Your task to perform on an android device: What's on my calendar today? Image 0: 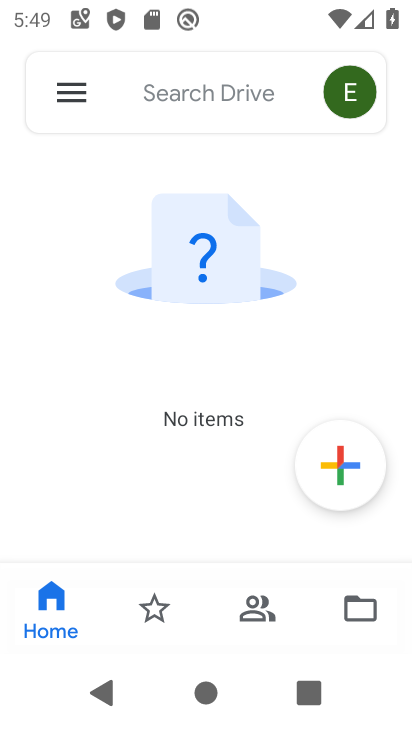
Step 0: drag from (183, 499) to (201, 266)
Your task to perform on an android device: What's on my calendar today? Image 1: 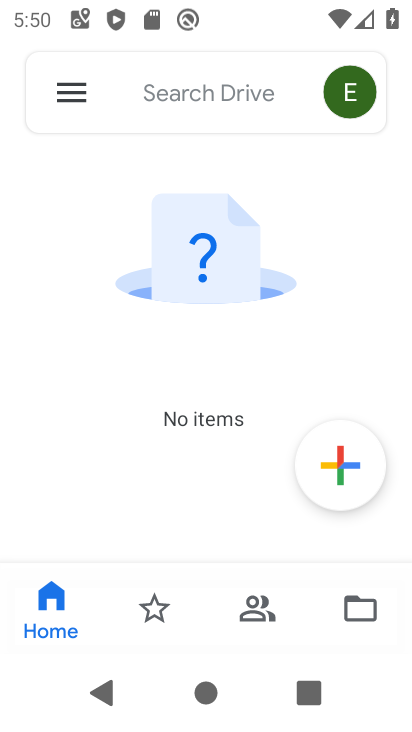
Step 1: press home button
Your task to perform on an android device: What's on my calendar today? Image 2: 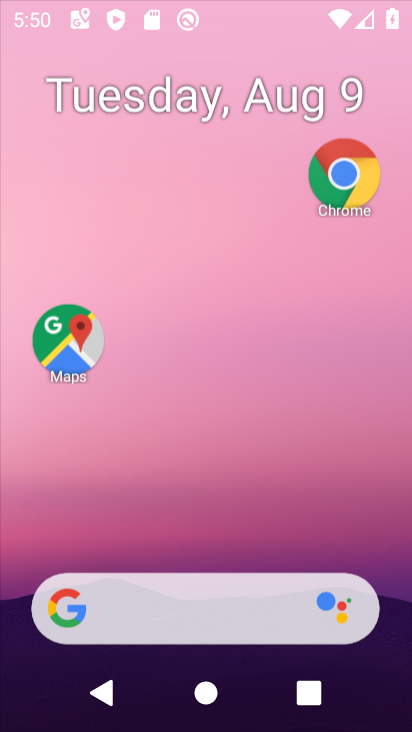
Step 2: drag from (179, 457) to (37, 354)
Your task to perform on an android device: What's on my calendar today? Image 3: 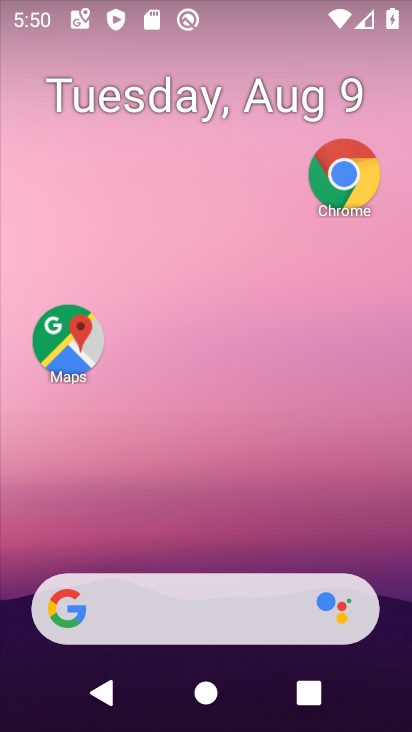
Step 3: drag from (230, 513) to (168, 124)
Your task to perform on an android device: What's on my calendar today? Image 4: 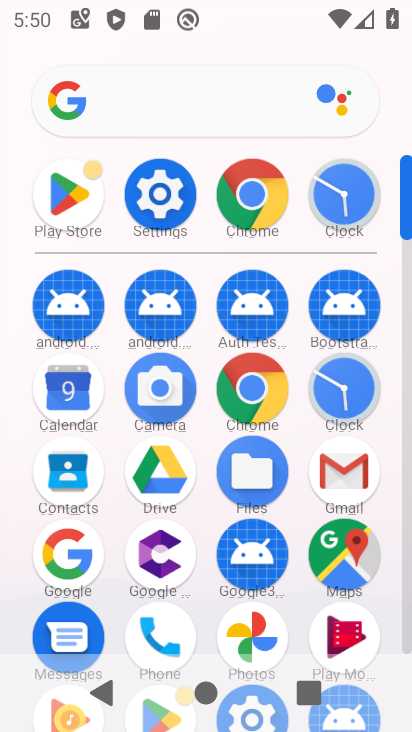
Step 4: click (62, 386)
Your task to perform on an android device: What's on my calendar today? Image 5: 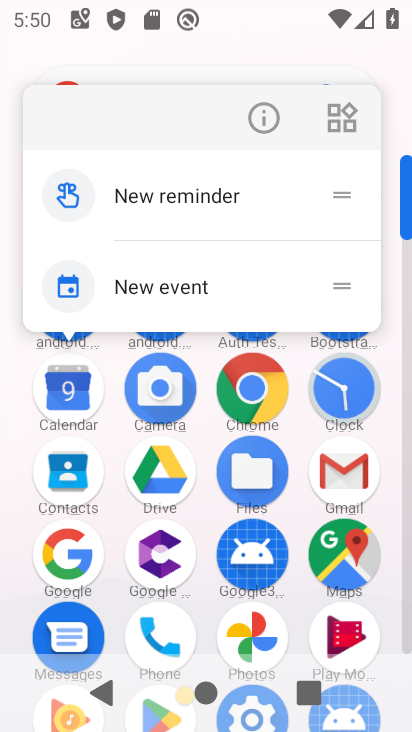
Step 5: click (269, 113)
Your task to perform on an android device: What's on my calendar today? Image 6: 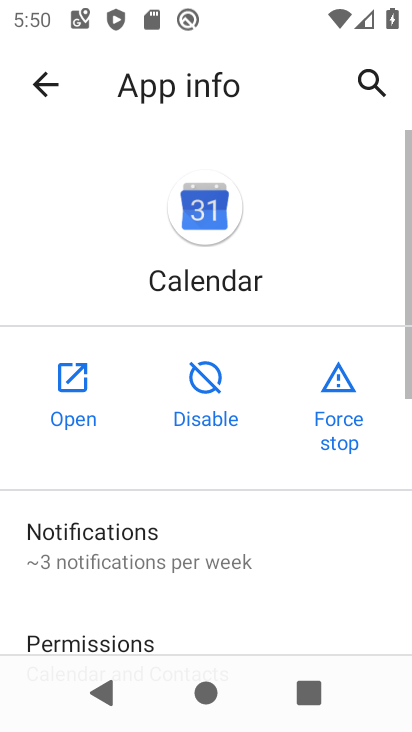
Step 6: click (84, 393)
Your task to perform on an android device: What's on my calendar today? Image 7: 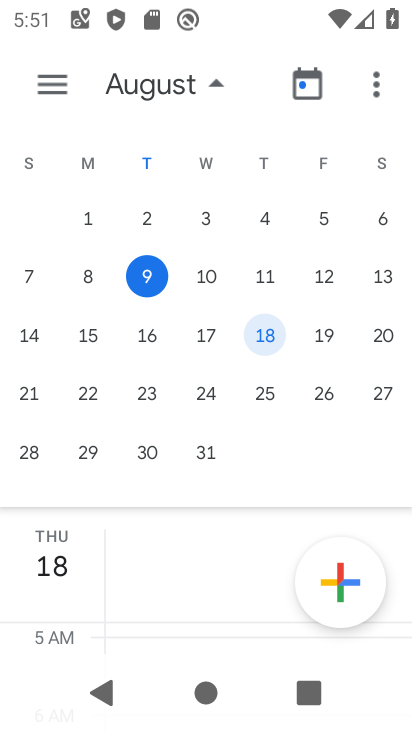
Step 7: click (253, 339)
Your task to perform on an android device: What's on my calendar today? Image 8: 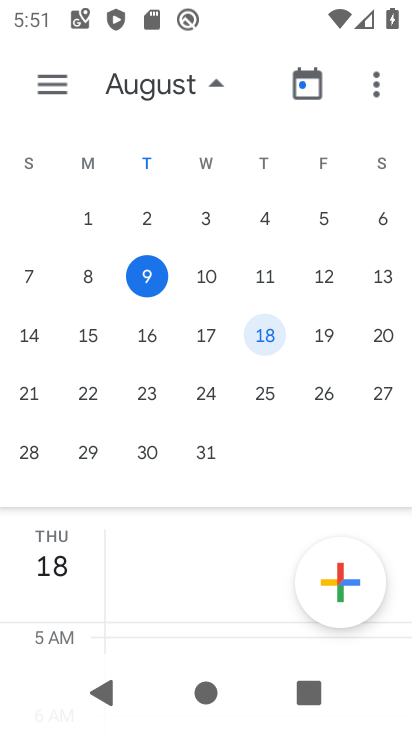
Step 8: click (262, 336)
Your task to perform on an android device: What's on my calendar today? Image 9: 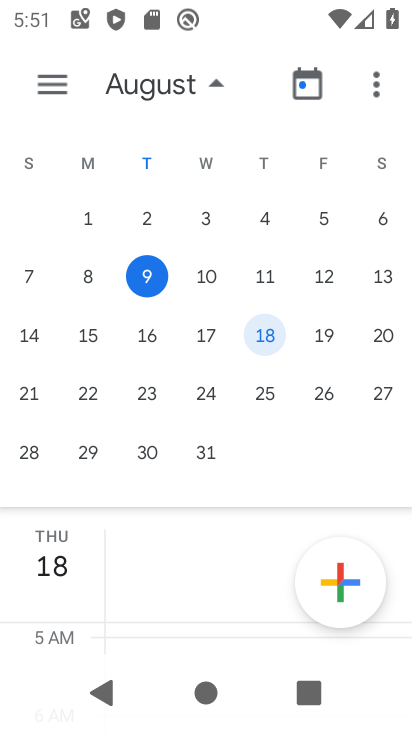
Step 9: click (138, 278)
Your task to perform on an android device: What's on my calendar today? Image 10: 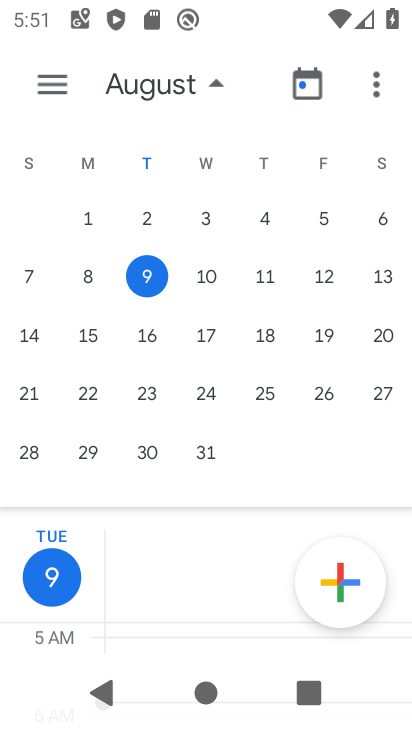
Step 10: task complete